Your task to perform on an android device: What is the news today? Image 0: 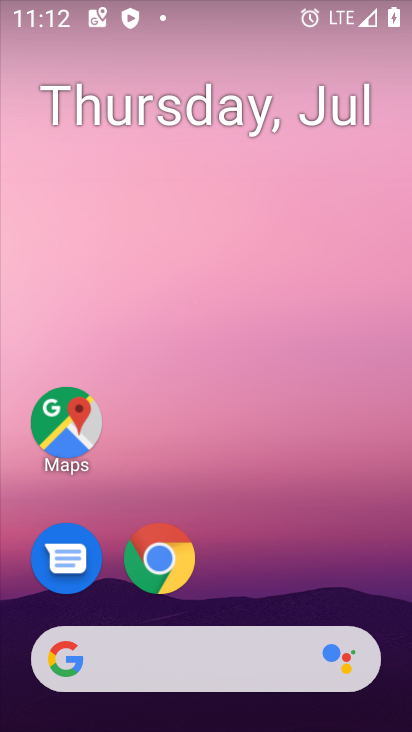
Step 0: drag from (0, 235) to (410, 384)
Your task to perform on an android device: What is the news today? Image 1: 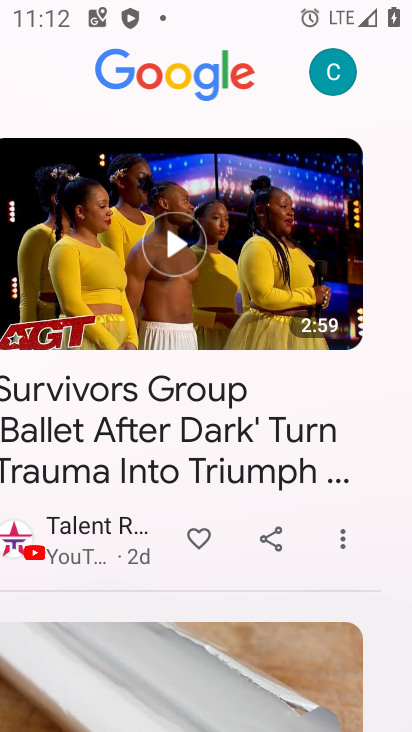
Step 1: task complete